Your task to perform on an android device: Open calendar and show me the fourth week of next month Image 0: 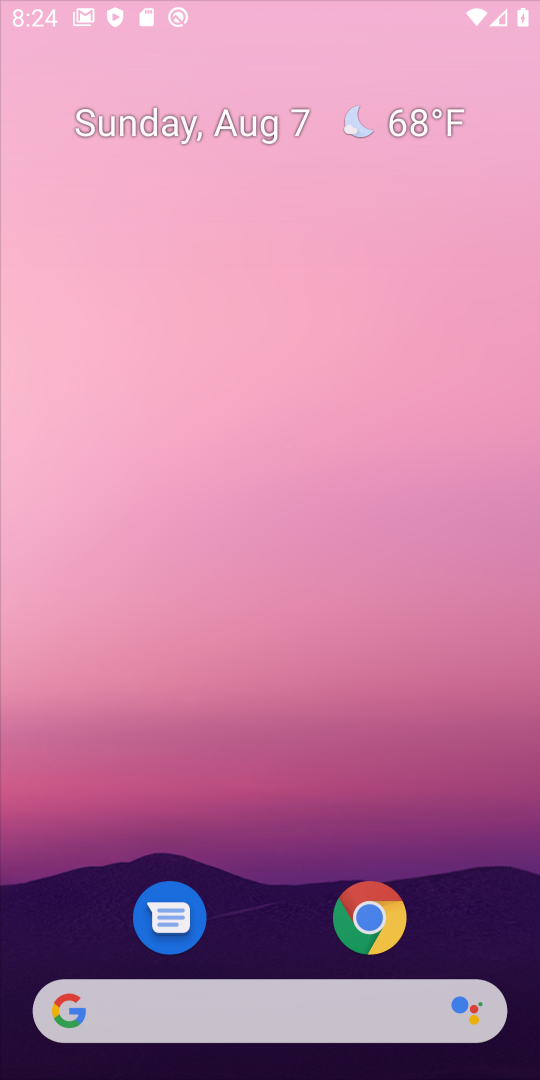
Step 0: press home button
Your task to perform on an android device: Open calendar and show me the fourth week of next month Image 1: 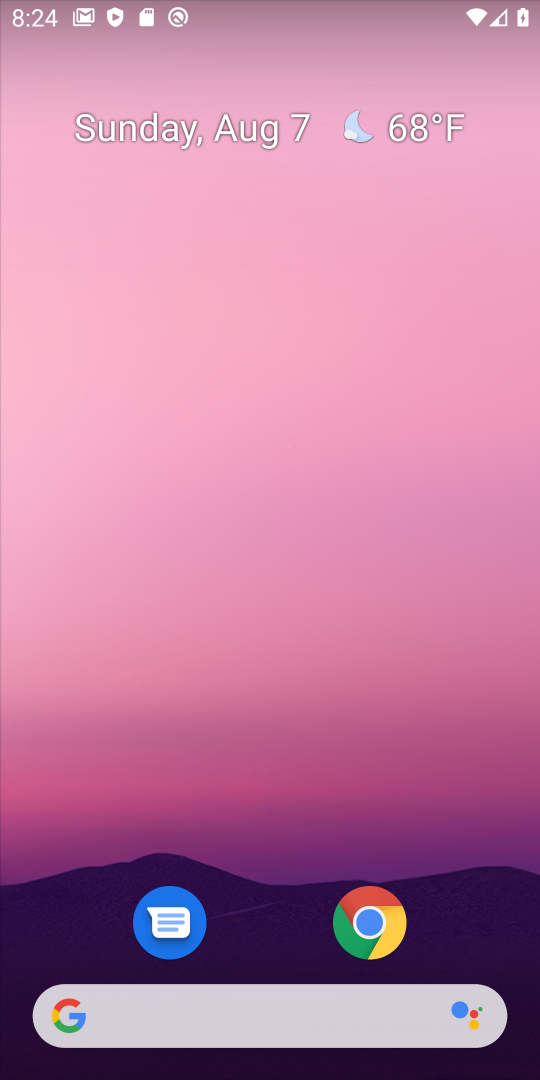
Step 1: drag from (266, 855) to (255, 131)
Your task to perform on an android device: Open calendar and show me the fourth week of next month Image 2: 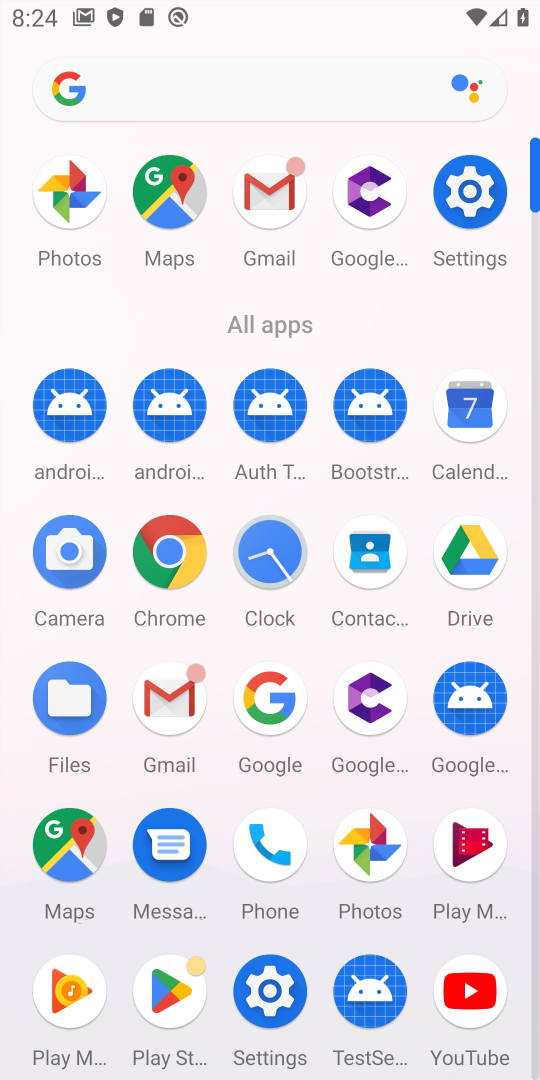
Step 2: click (473, 425)
Your task to perform on an android device: Open calendar and show me the fourth week of next month Image 3: 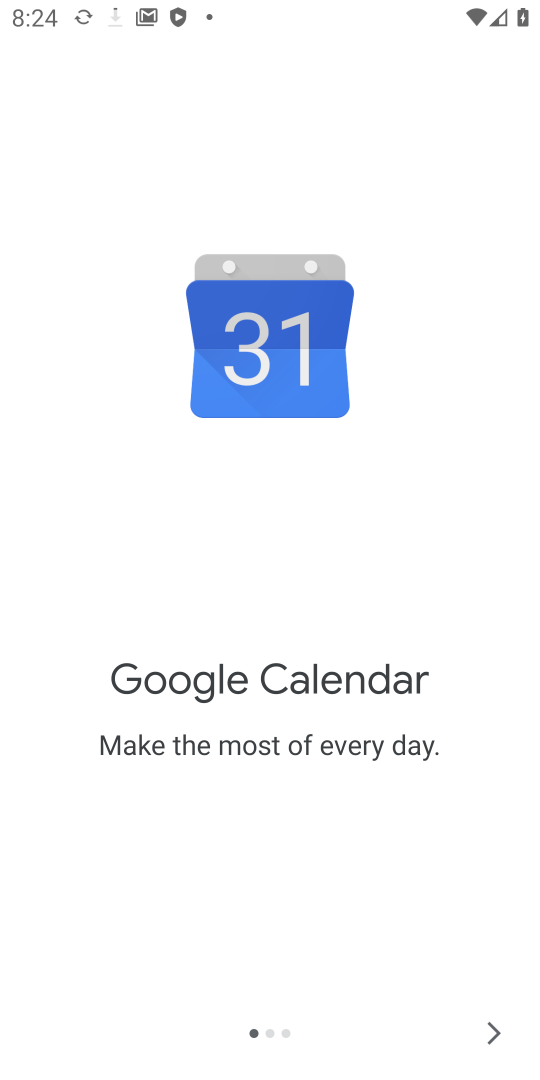
Step 3: click (490, 1025)
Your task to perform on an android device: Open calendar and show me the fourth week of next month Image 4: 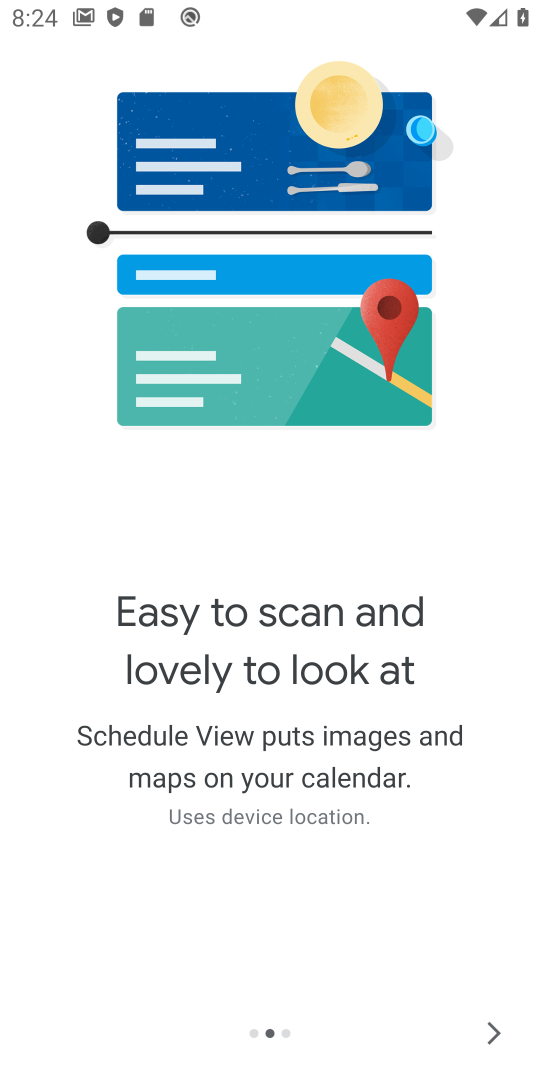
Step 4: click (490, 1025)
Your task to perform on an android device: Open calendar and show me the fourth week of next month Image 5: 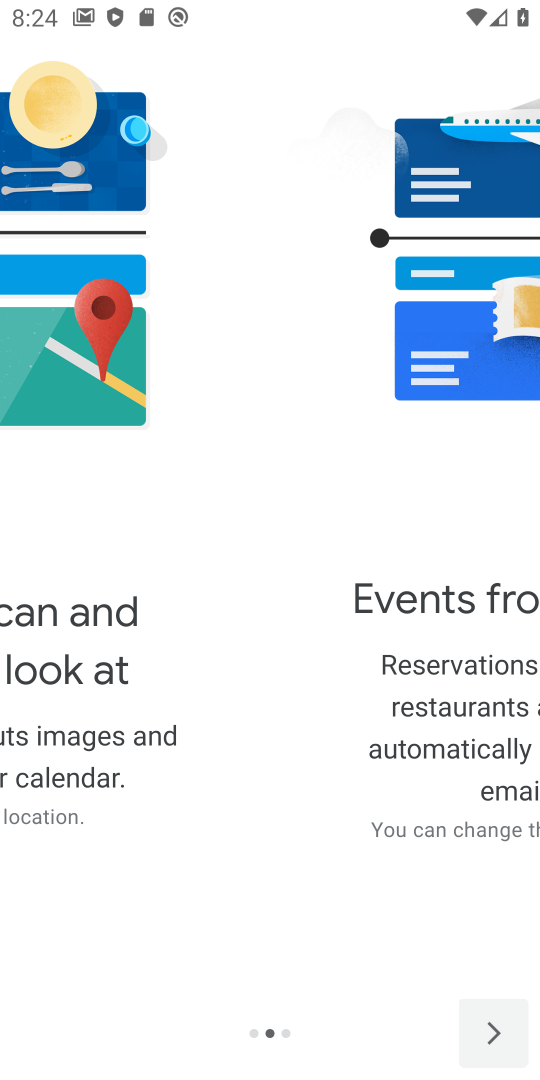
Step 5: click (490, 1025)
Your task to perform on an android device: Open calendar and show me the fourth week of next month Image 6: 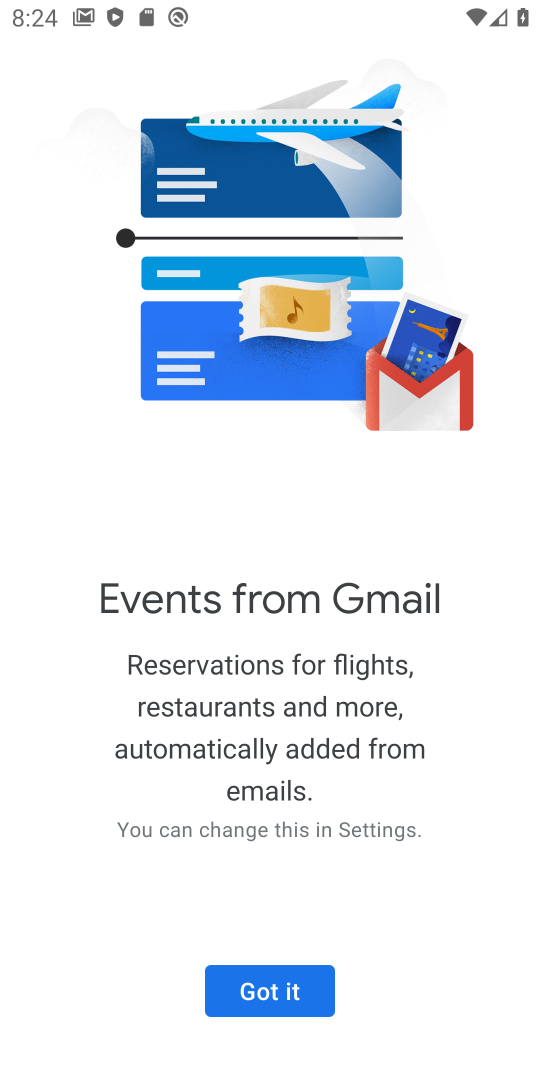
Step 6: click (490, 1025)
Your task to perform on an android device: Open calendar and show me the fourth week of next month Image 7: 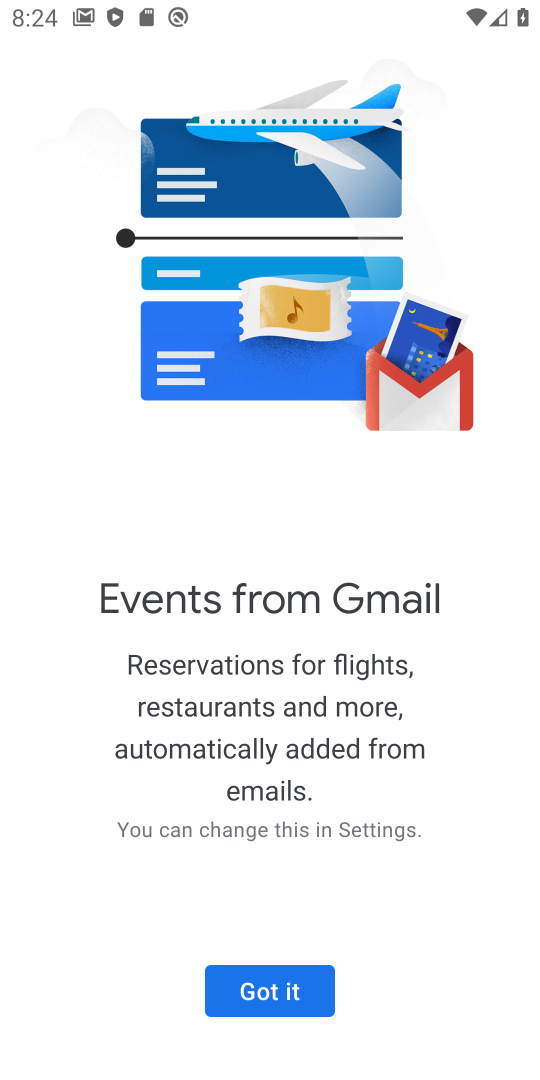
Step 7: click (260, 1003)
Your task to perform on an android device: Open calendar and show me the fourth week of next month Image 8: 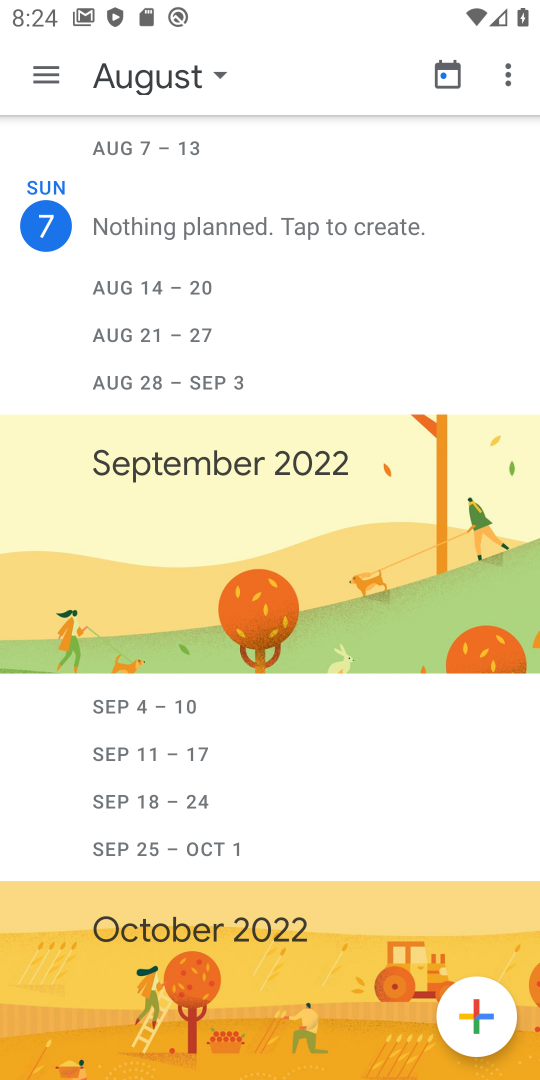
Step 8: click (260, 1003)
Your task to perform on an android device: Open calendar and show me the fourth week of next month Image 9: 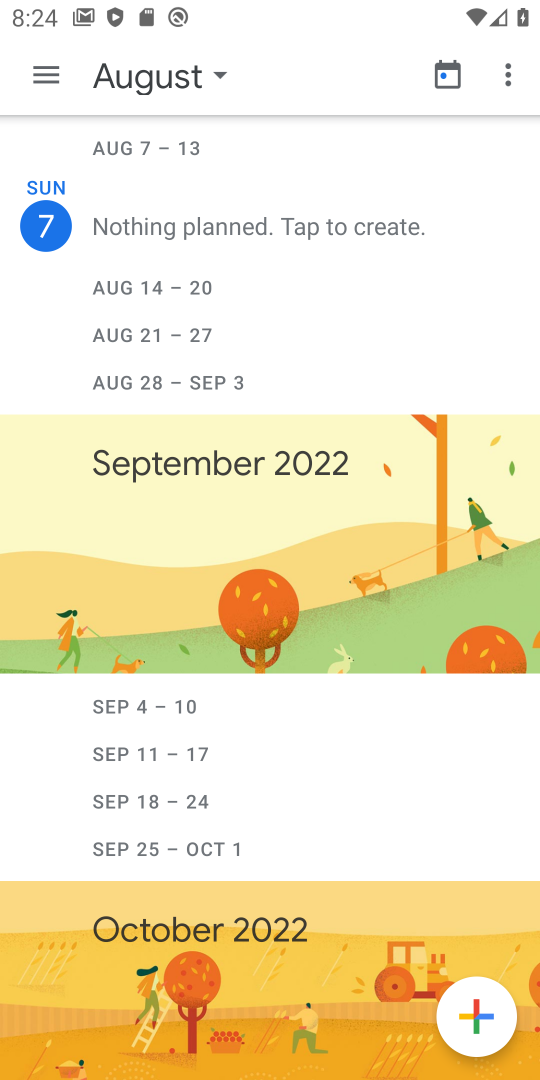
Step 9: task complete